Your task to perform on an android device: snooze an email in the gmail app Image 0: 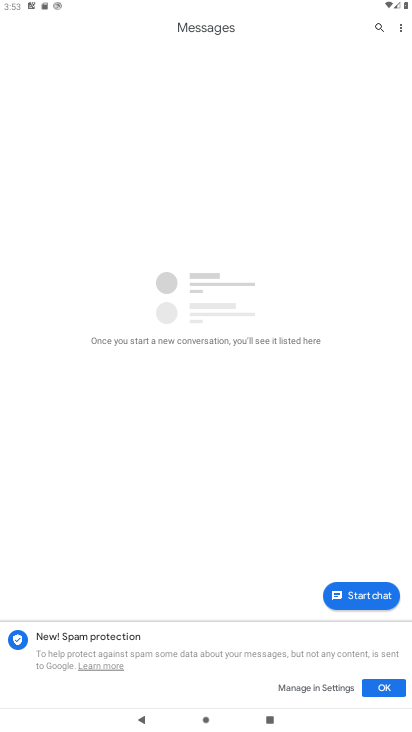
Step 0: press home button
Your task to perform on an android device: snooze an email in the gmail app Image 1: 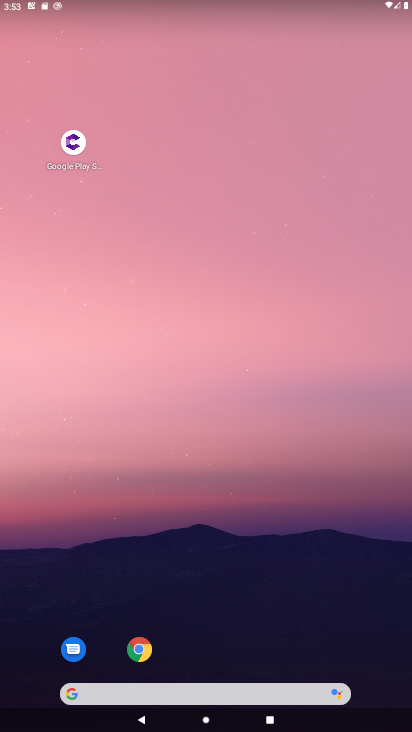
Step 1: drag from (378, 650) to (320, 100)
Your task to perform on an android device: snooze an email in the gmail app Image 2: 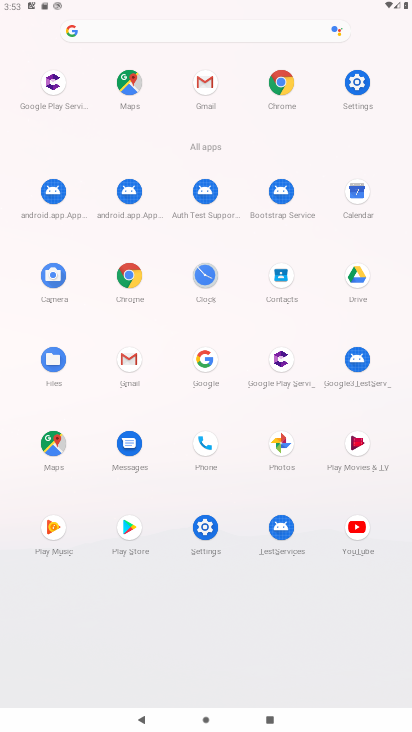
Step 2: click (129, 359)
Your task to perform on an android device: snooze an email in the gmail app Image 3: 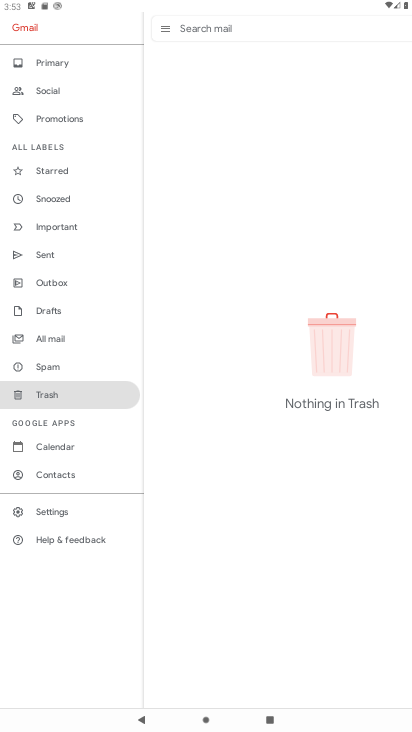
Step 3: click (45, 333)
Your task to perform on an android device: snooze an email in the gmail app Image 4: 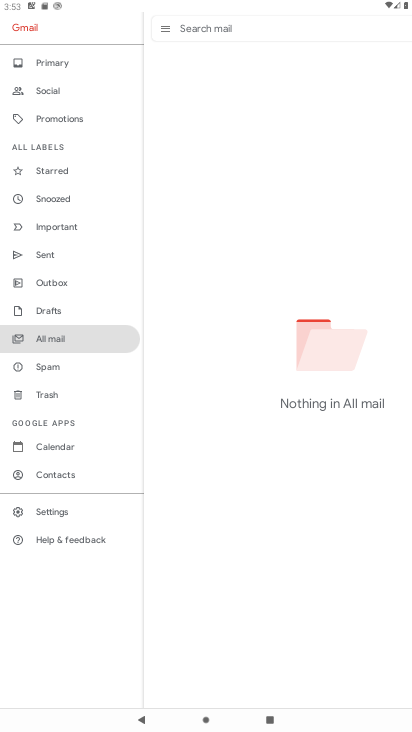
Step 4: task complete